Your task to perform on an android device: empty trash in google photos Image 0: 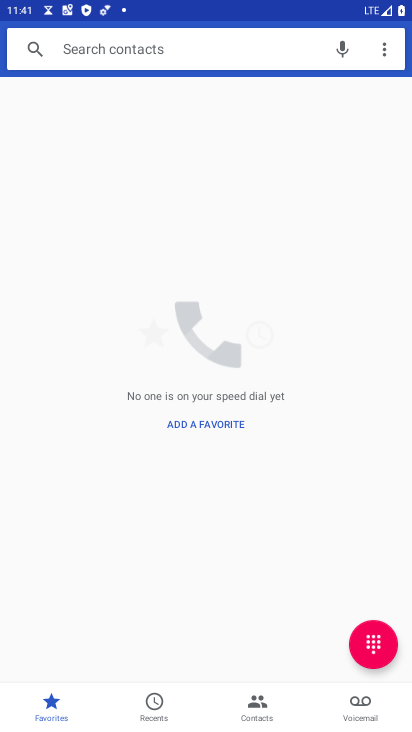
Step 0: press home button
Your task to perform on an android device: empty trash in google photos Image 1: 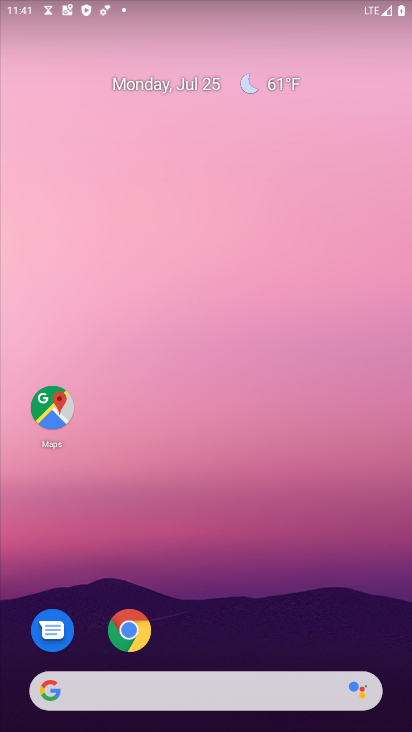
Step 1: drag from (246, 640) to (251, 34)
Your task to perform on an android device: empty trash in google photos Image 2: 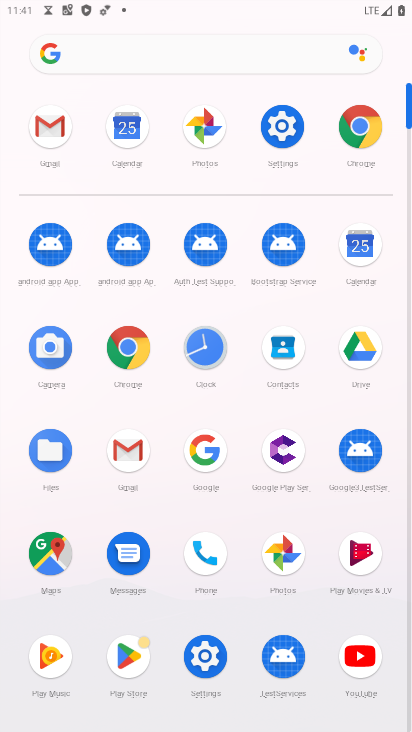
Step 2: click (205, 122)
Your task to perform on an android device: empty trash in google photos Image 3: 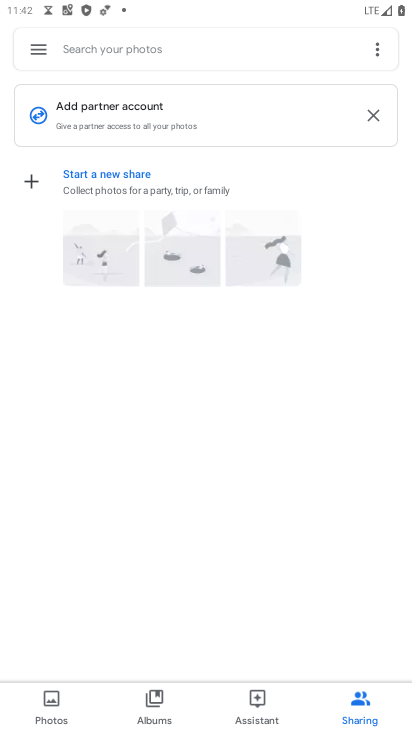
Step 3: click (35, 53)
Your task to perform on an android device: empty trash in google photos Image 4: 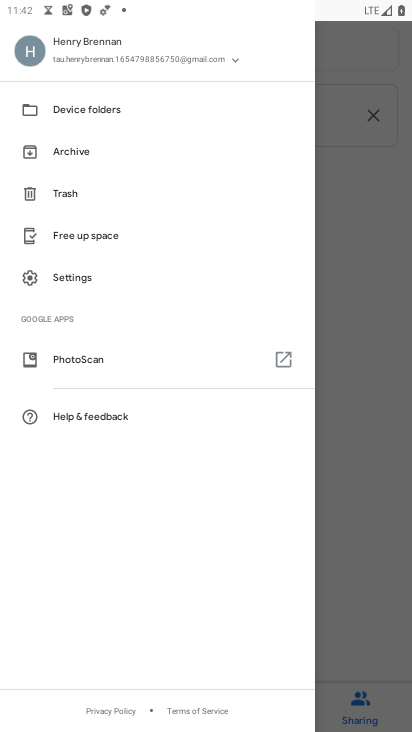
Step 4: click (56, 194)
Your task to perform on an android device: empty trash in google photos Image 5: 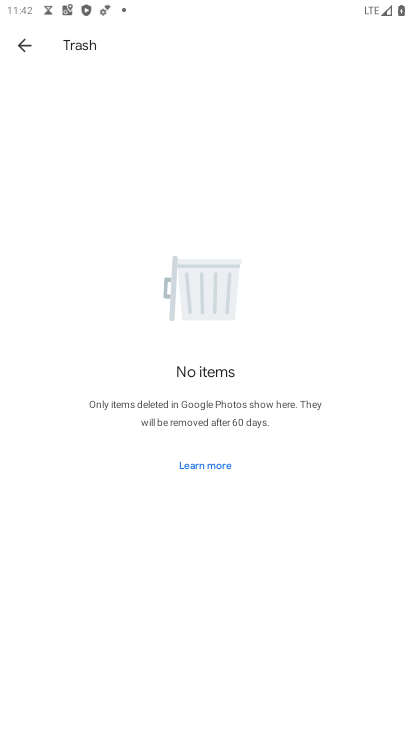
Step 5: task complete